Your task to perform on an android device: turn on airplane mode Image 0: 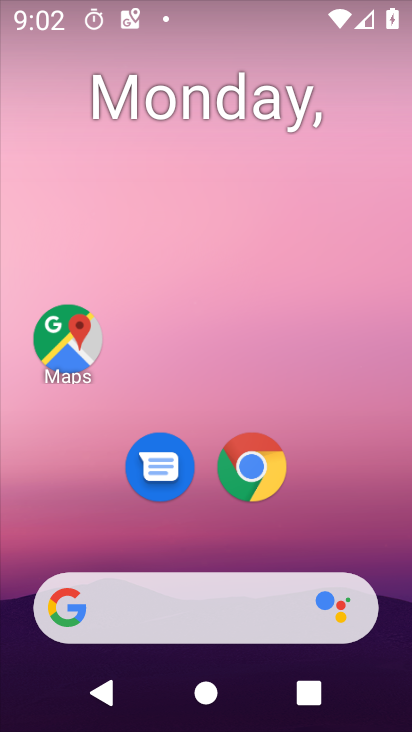
Step 0: drag from (191, 472) to (230, 33)
Your task to perform on an android device: turn on airplane mode Image 1: 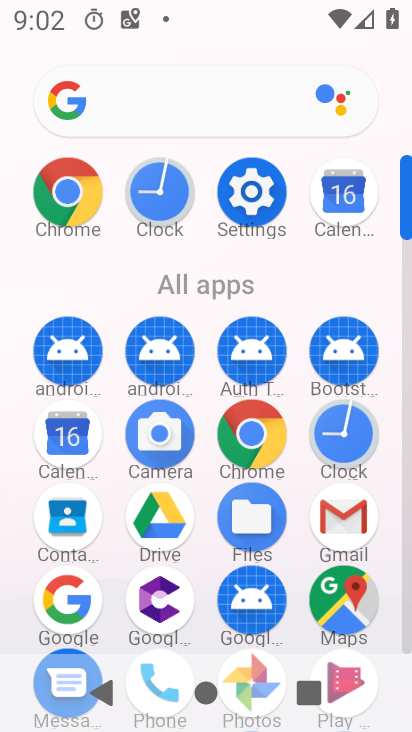
Step 1: click (240, 201)
Your task to perform on an android device: turn on airplane mode Image 2: 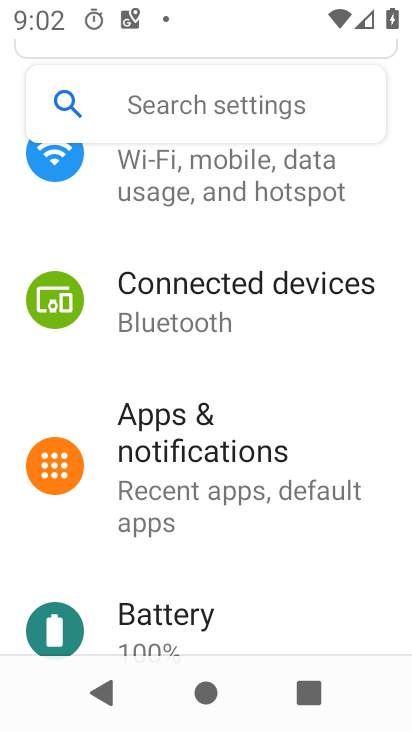
Step 2: drag from (240, 203) to (221, 526)
Your task to perform on an android device: turn on airplane mode Image 3: 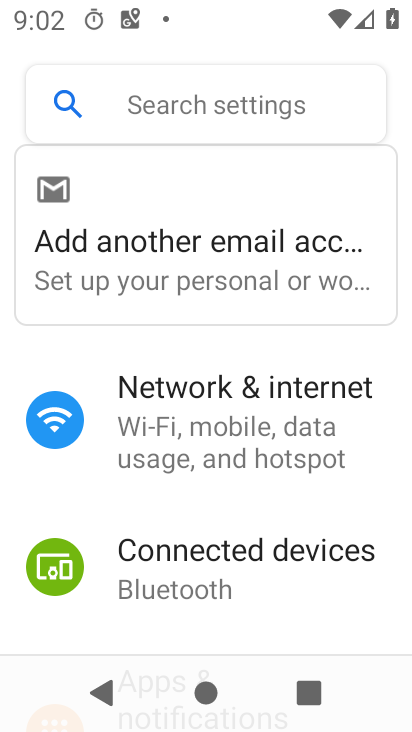
Step 3: click (222, 409)
Your task to perform on an android device: turn on airplane mode Image 4: 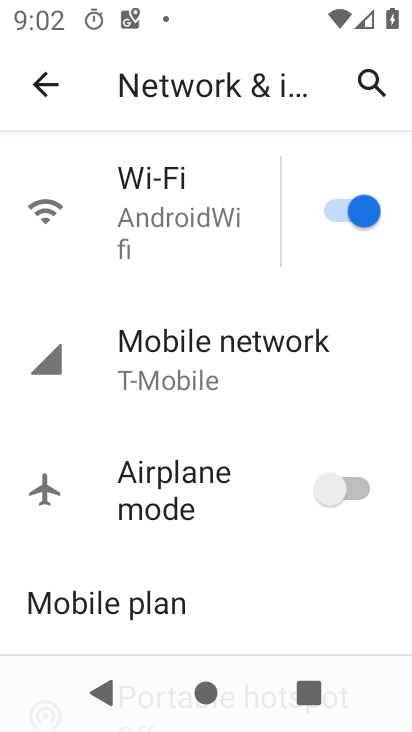
Step 4: click (345, 491)
Your task to perform on an android device: turn on airplane mode Image 5: 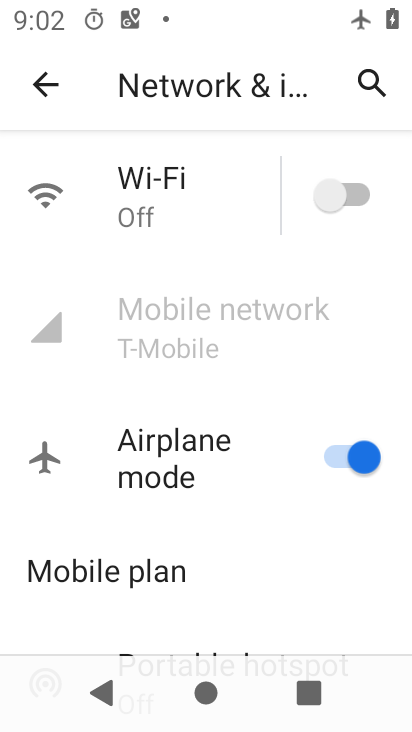
Step 5: task complete